Your task to perform on an android device: open the mobile data screen to see how much data has been used Image 0: 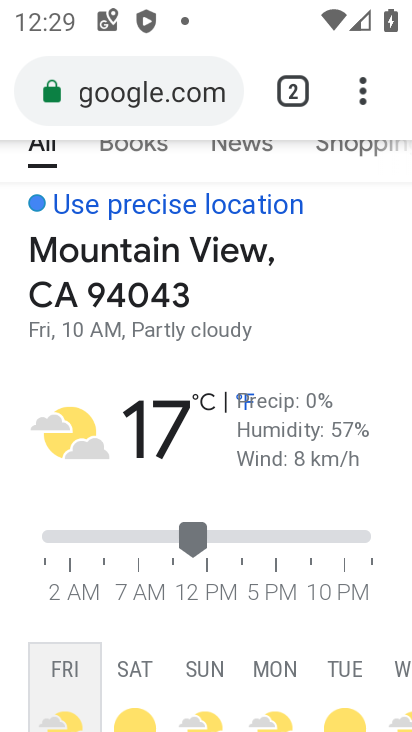
Step 0: press home button
Your task to perform on an android device: open the mobile data screen to see how much data has been used Image 1: 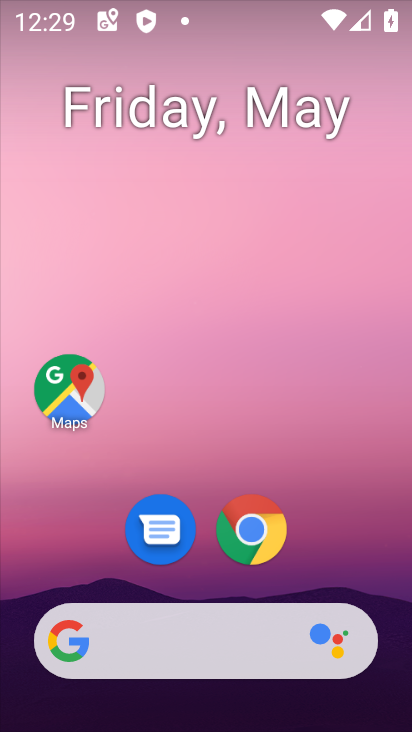
Step 1: drag from (326, 566) to (157, 154)
Your task to perform on an android device: open the mobile data screen to see how much data has been used Image 2: 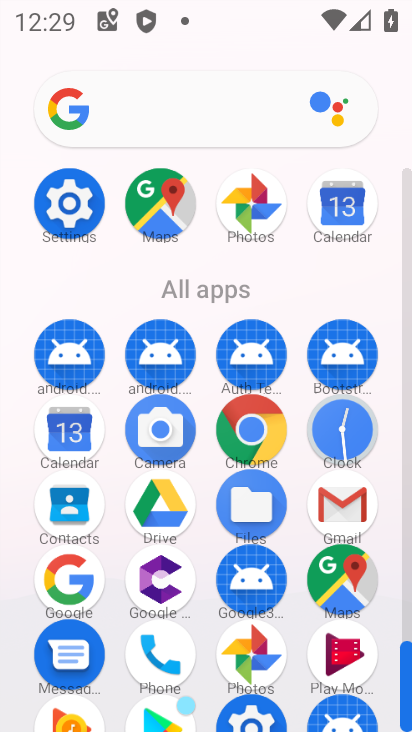
Step 2: click (73, 204)
Your task to perform on an android device: open the mobile data screen to see how much data has been used Image 3: 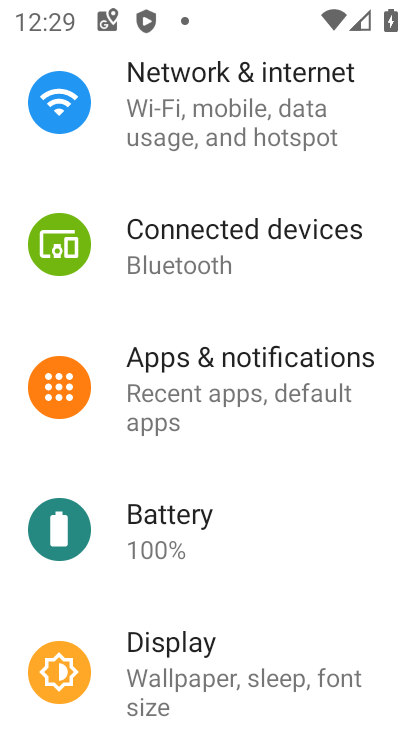
Step 3: click (226, 119)
Your task to perform on an android device: open the mobile data screen to see how much data has been used Image 4: 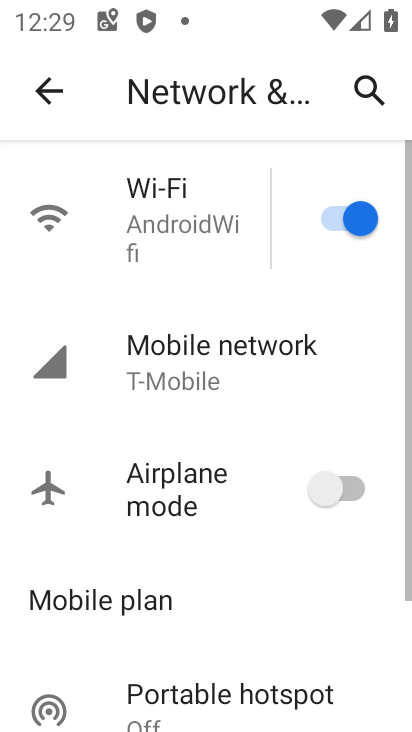
Step 4: click (169, 371)
Your task to perform on an android device: open the mobile data screen to see how much data has been used Image 5: 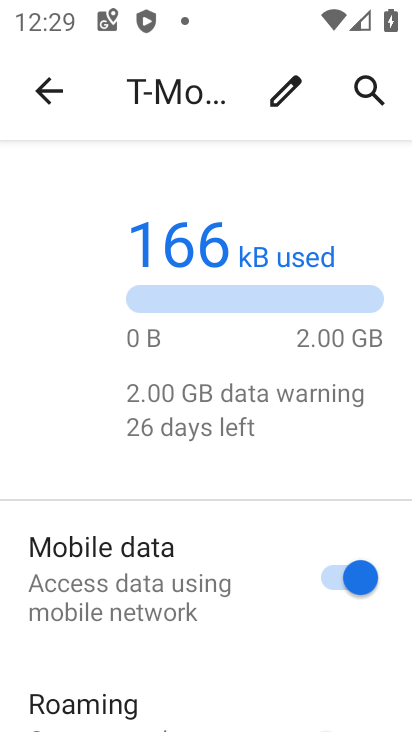
Step 5: task complete